Your task to perform on an android device: Is it going to rain this weekend? Image 0: 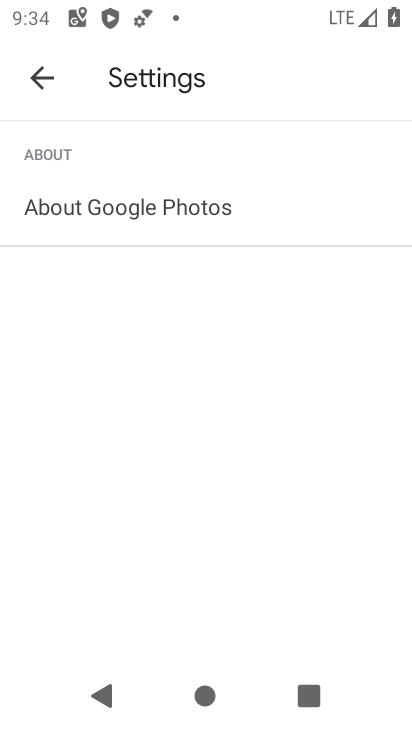
Step 0: press home button
Your task to perform on an android device: Is it going to rain this weekend? Image 1: 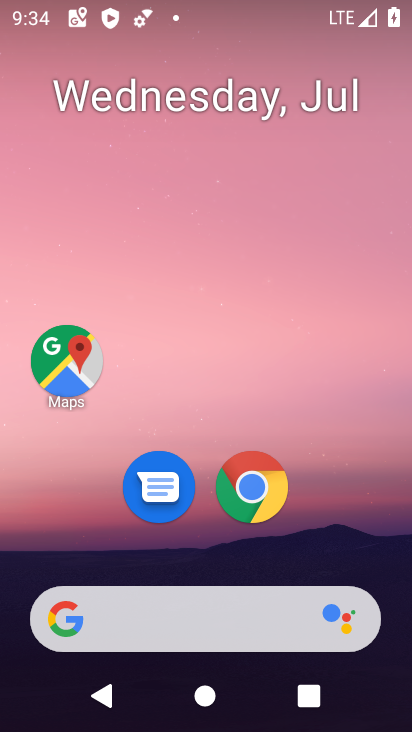
Step 1: drag from (194, 574) to (260, 49)
Your task to perform on an android device: Is it going to rain this weekend? Image 2: 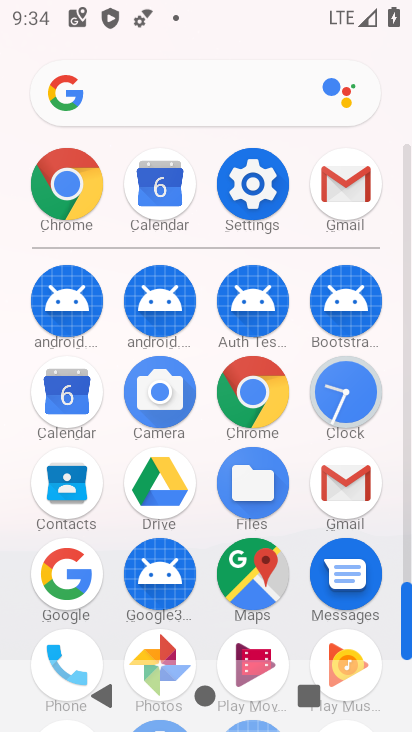
Step 2: click (65, 580)
Your task to perform on an android device: Is it going to rain this weekend? Image 3: 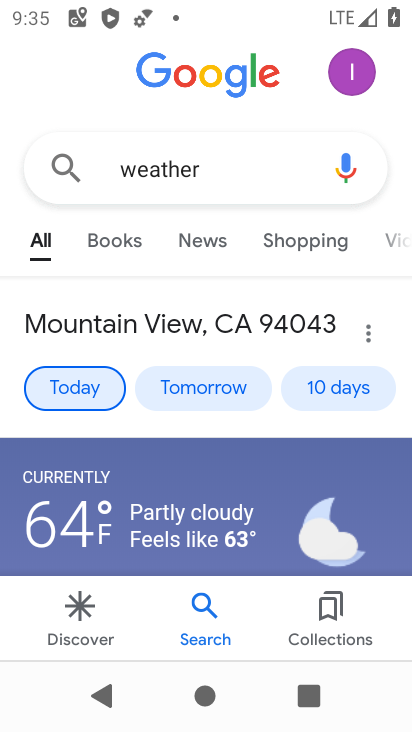
Step 3: click (325, 376)
Your task to perform on an android device: Is it going to rain this weekend? Image 4: 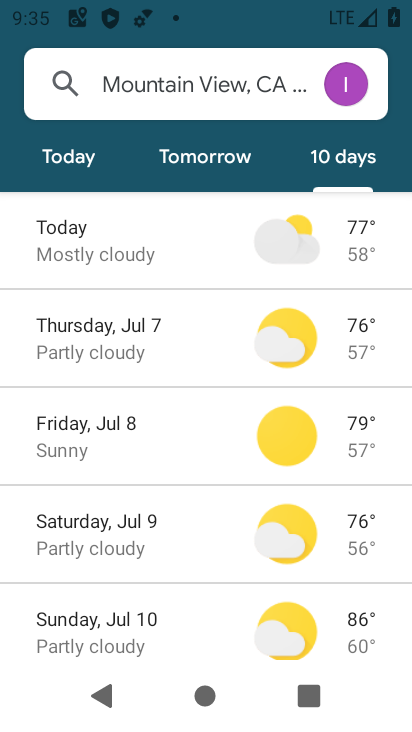
Step 4: task complete